Your task to perform on an android device: Open internet settings Image 0: 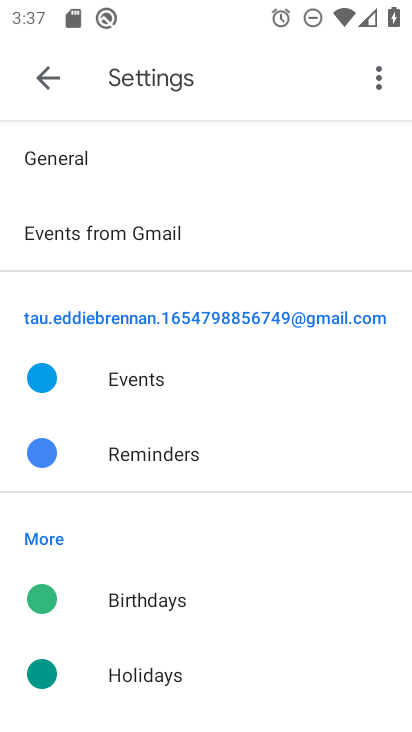
Step 0: press home button
Your task to perform on an android device: Open internet settings Image 1: 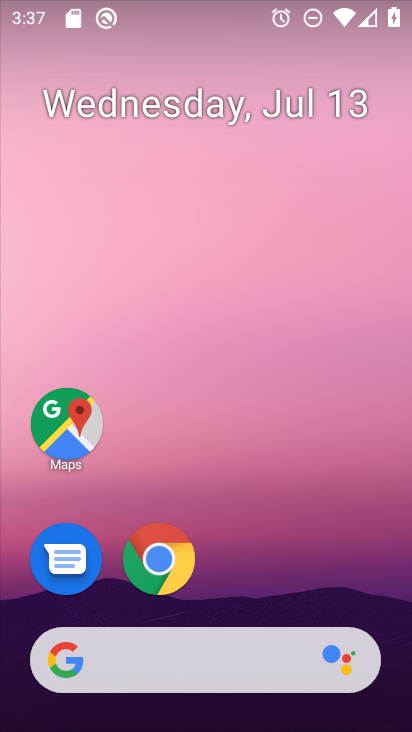
Step 1: drag from (335, 573) to (333, 140)
Your task to perform on an android device: Open internet settings Image 2: 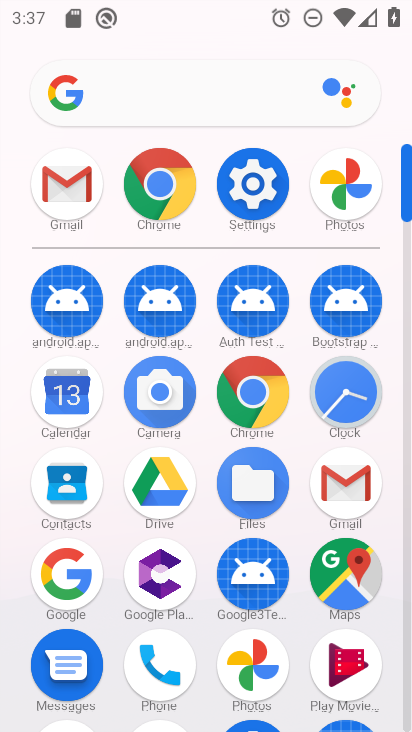
Step 2: click (265, 197)
Your task to perform on an android device: Open internet settings Image 3: 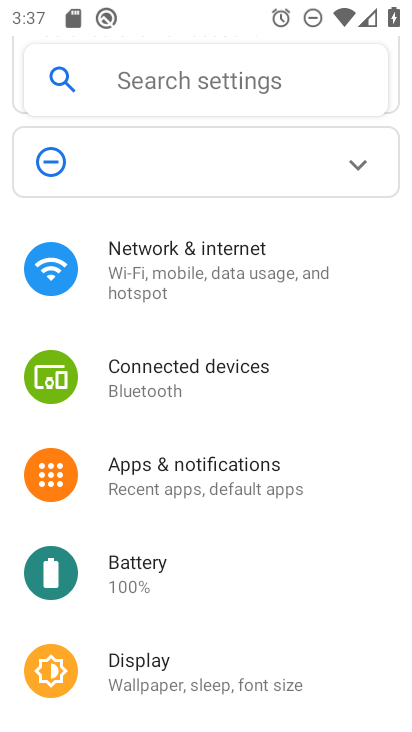
Step 3: drag from (337, 558) to (349, 429)
Your task to perform on an android device: Open internet settings Image 4: 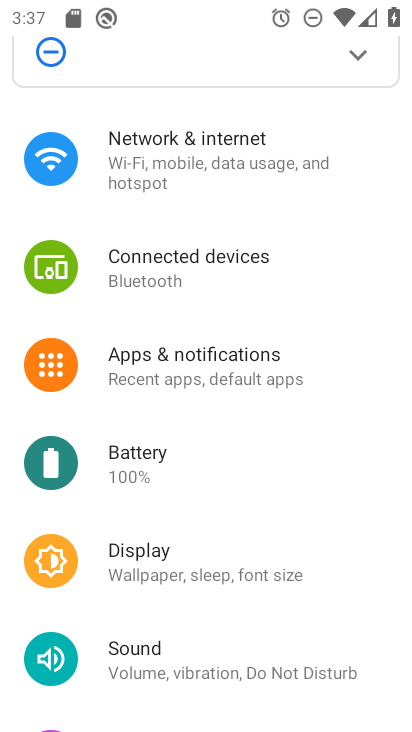
Step 4: drag from (352, 581) to (355, 463)
Your task to perform on an android device: Open internet settings Image 5: 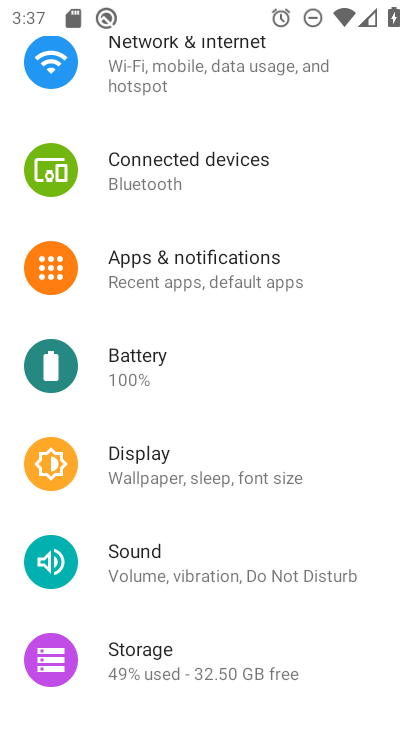
Step 5: drag from (358, 608) to (356, 462)
Your task to perform on an android device: Open internet settings Image 6: 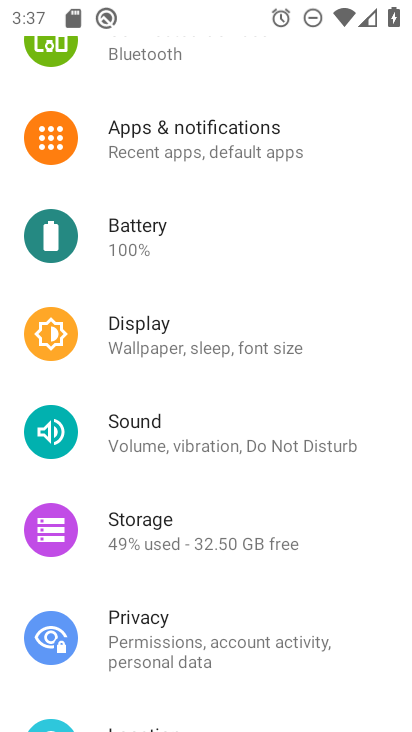
Step 6: drag from (360, 512) to (378, 384)
Your task to perform on an android device: Open internet settings Image 7: 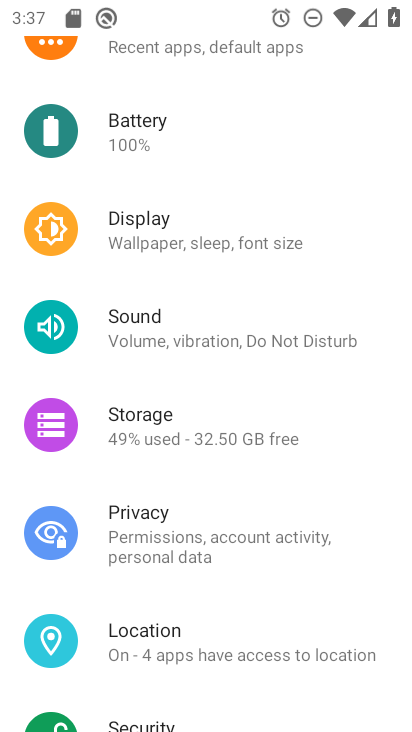
Step 7: drag from (359, 546) to (371, 417)
Your task to perform on an android device: Open internet settings Image 8: 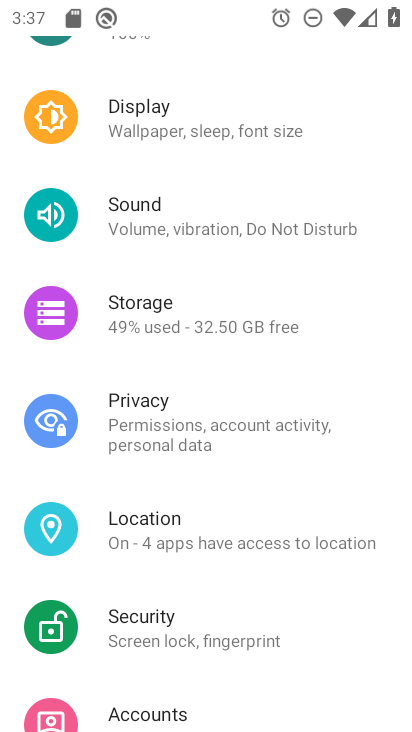
Step 8: drag from (360, 596) to (356, 471)
Your task to perform on an android device: Open internet settings Image 9: 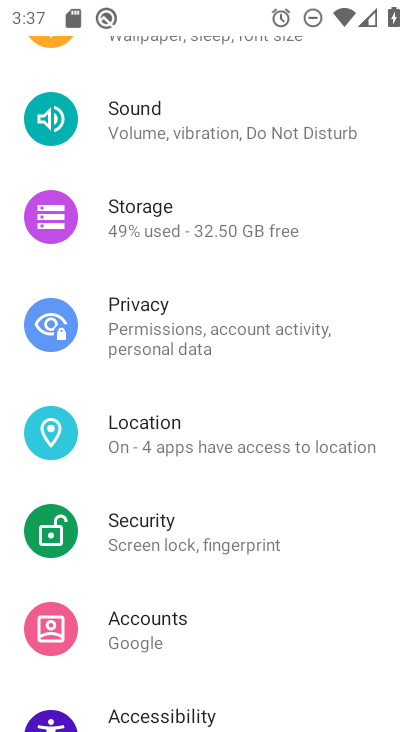
Step 9: drag from (351, 299) to (360, 415)
Your task to perform on an android device: Open internet settings Image 10: 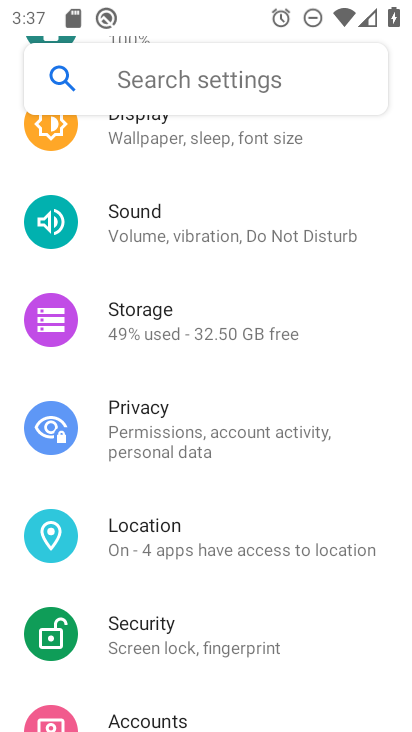
Step 10: drag from (346, 299) to (346, 427)
Your task to perform on an android device: Open internet settings Image 11: 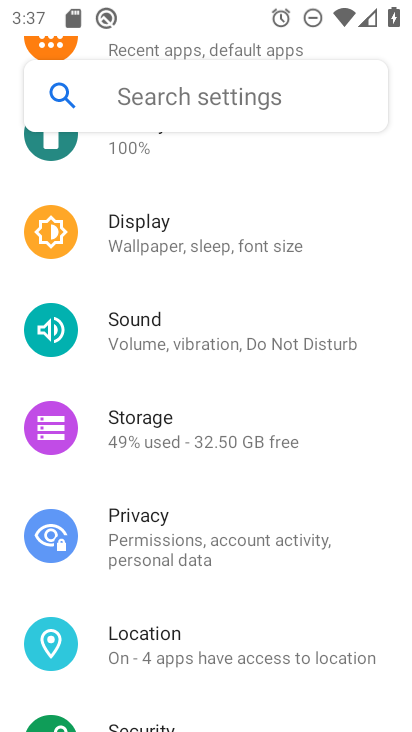
Step 11: drag from (344, 271) to (353, 389)
Your task to perform on an android device: Open internet settings Image 12: 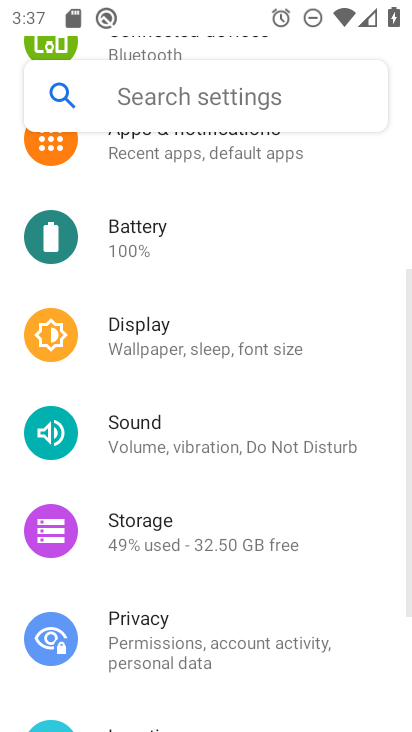
Step 12: drag from (353, 257) to (353, 345)
Your task to perform on an android device: Open internet settings Image 13: 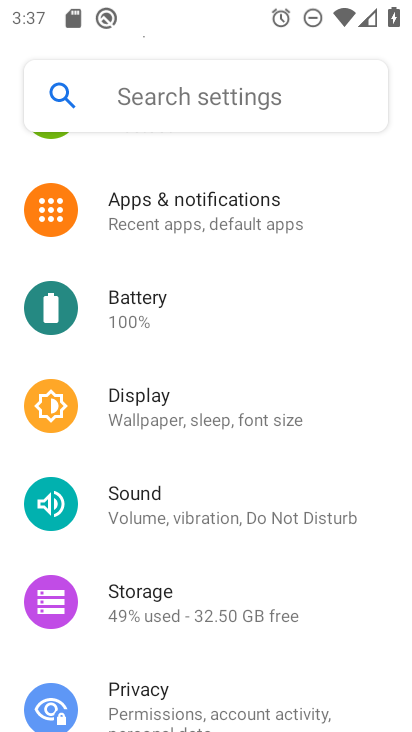
Step 13: drag from (353, 245) to (354, 346)
Your task to perform on an android device: Open internet settings Image 14: 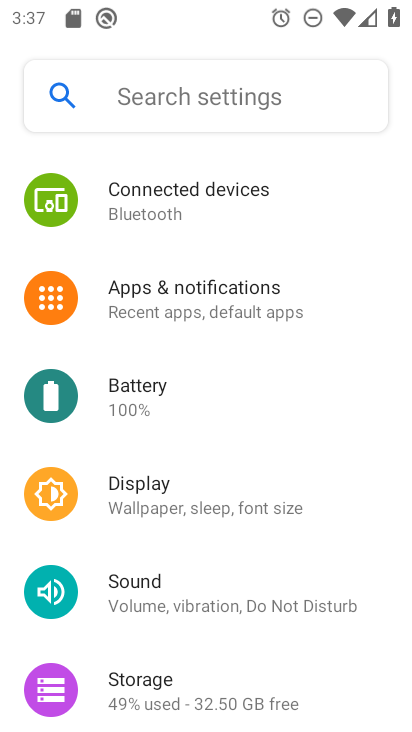
Step 14: drag from (350, 211) to (348, 325)
Your task to perform on an android device: Open internet settings Image 15: 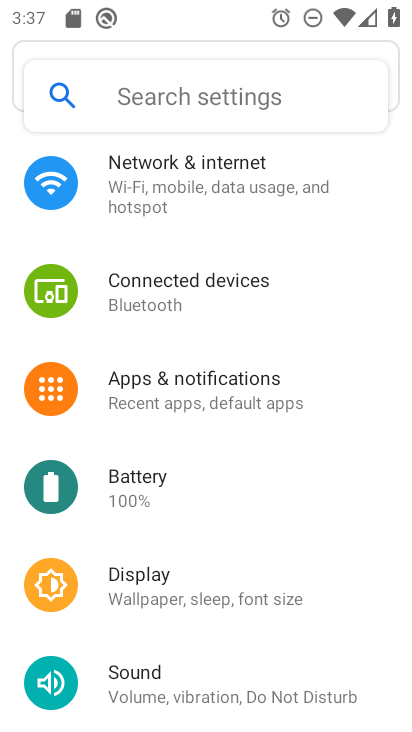
Step 15: drag from (347, 194) to (350, 416)
Your task to perform on an android device: Open internet settings Image 16: 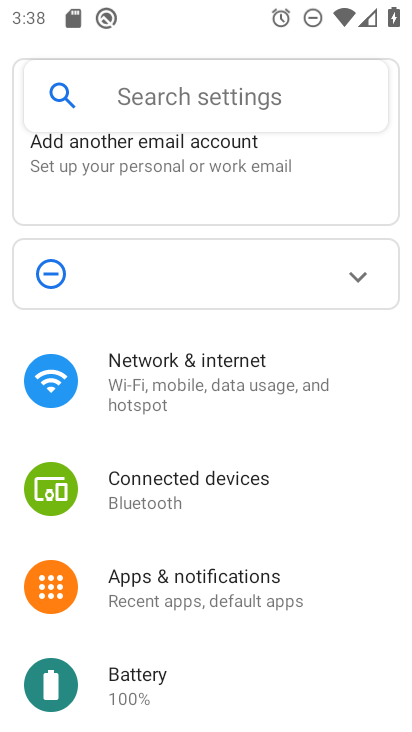
Step 16: click (230, 386)
Your task to perform on an android device: Open internet settings Image 17: 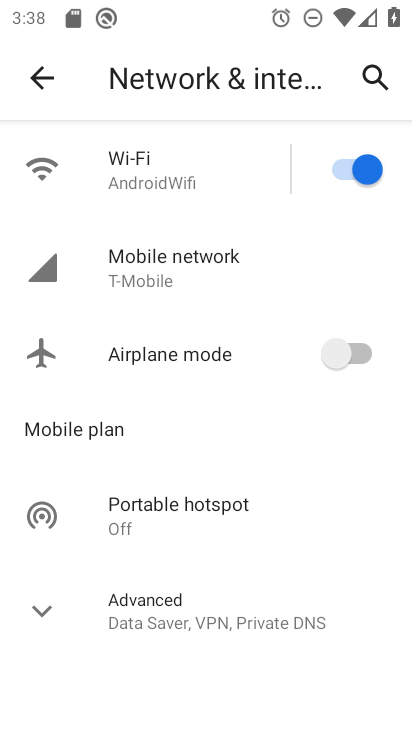
Step 17: task complete